Your task to perform on an android device: When is my next appointment? Image 0: 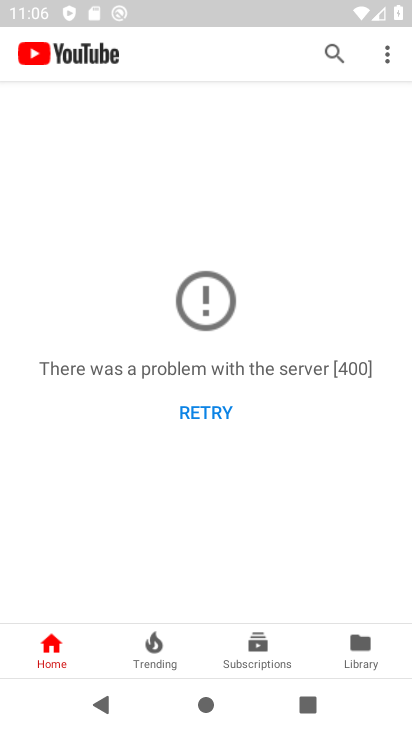
Step 0: press home button
Your task to perform on an android device: When is my next appointment? Image 1: 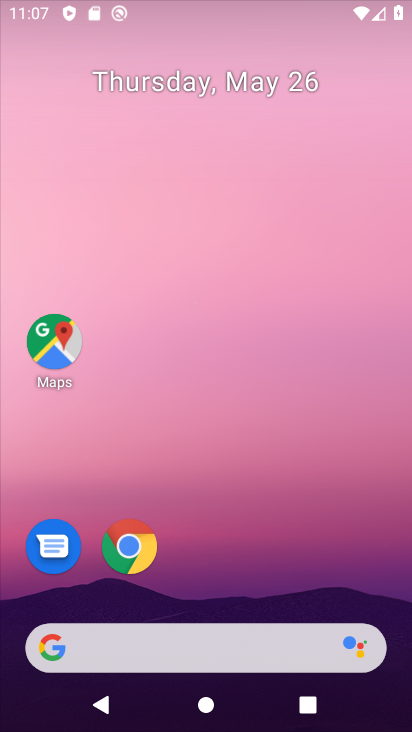
Step 1: drag from (213, 580) to (292, 109)
Your task to perform on an android device: When is my next appointment? Image 2: 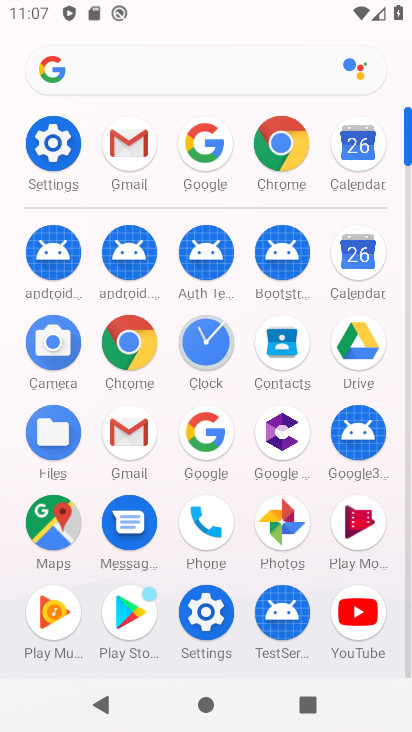
Step 2: click (364, 143)
Your task to perform on an android device: When is my next appointment? Image 3: 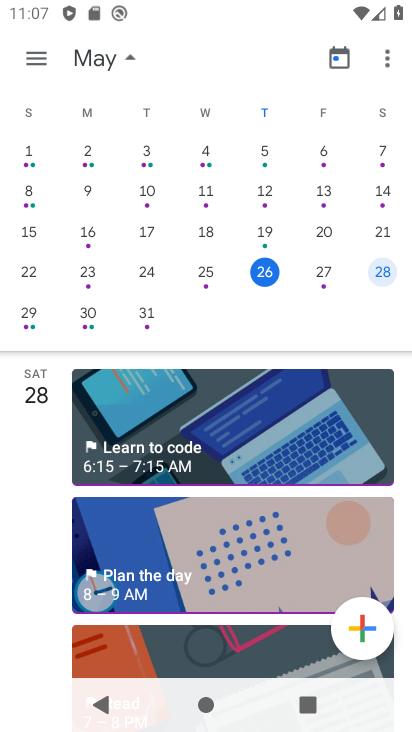
Step 3: click (323, 272)
Your task to perform on an android device: When is my next appointment? Image 4: 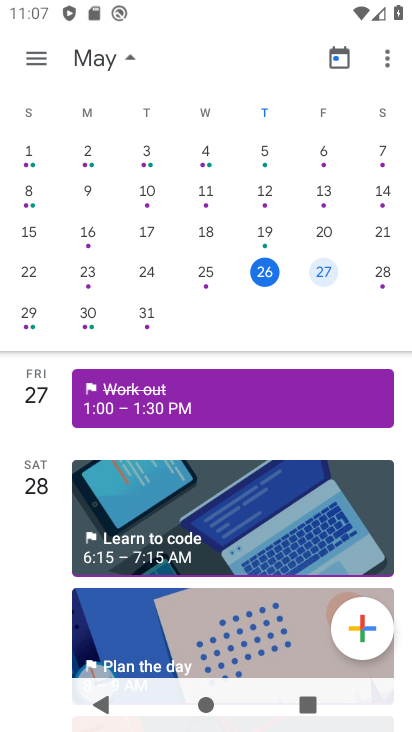
Step 4: task complete